Your task to perform on an android device: turn off sleep mode Image 0: 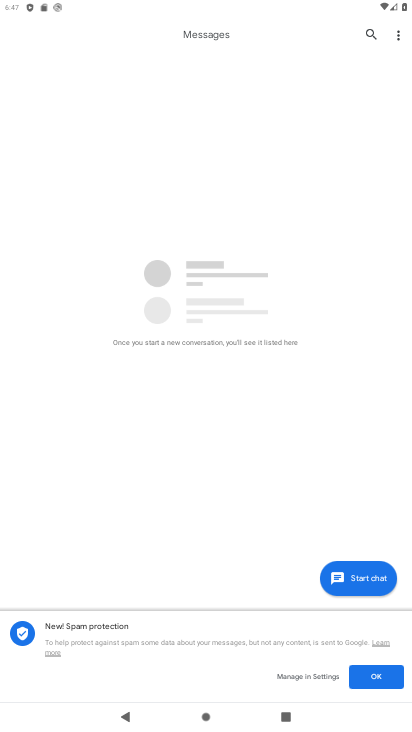
Step 0: press home button
Your task to perform on an android device: turn off sleep mode Image 1: 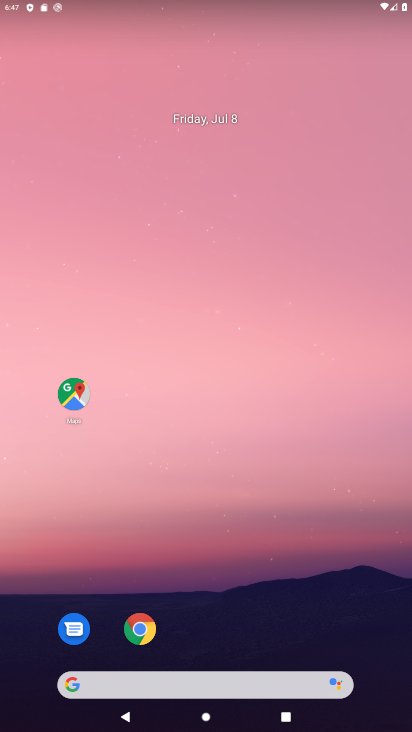
Step 1: drag from (224, 657) to (404, 8)
Your task to perform on an android device: turn off sleep mode Image 2: 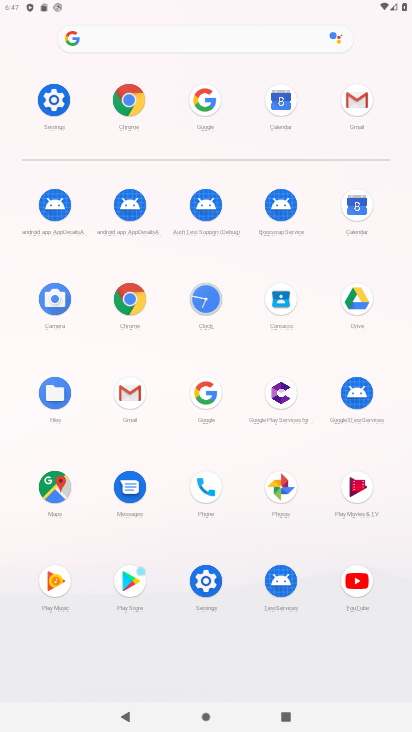
Step 2: click (192, 581)
Your task to perform on an android device: turn off sleep mode Image 3: 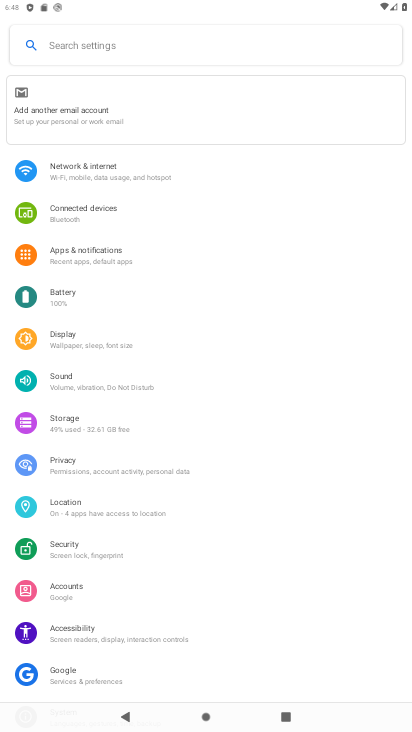
Step 3: click (81, 342)
Your task to perform on an android device: turn off sleep mode Image 4: 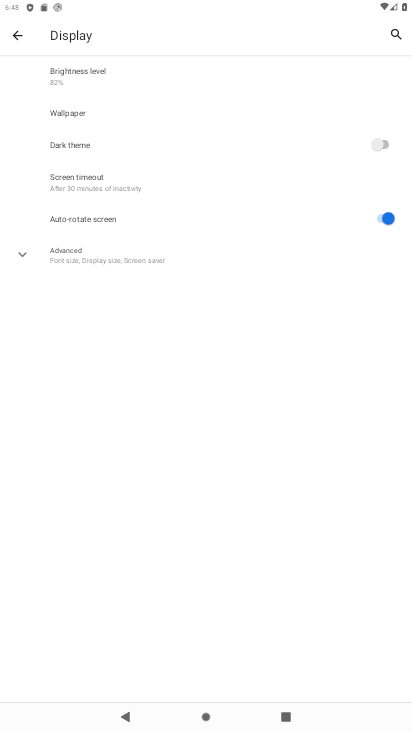
Step 4: click (77, 261)
Your task to perform on an android device: turn off sleep mode Image 5: 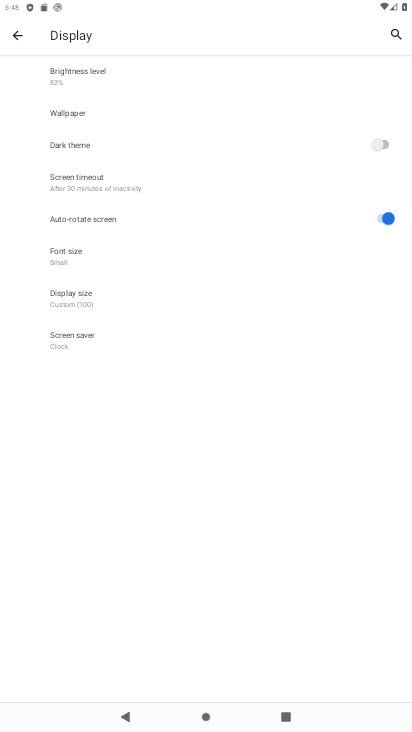
Step 5: task complete